Your task to perform on an android device: turn on wifi Image 0: 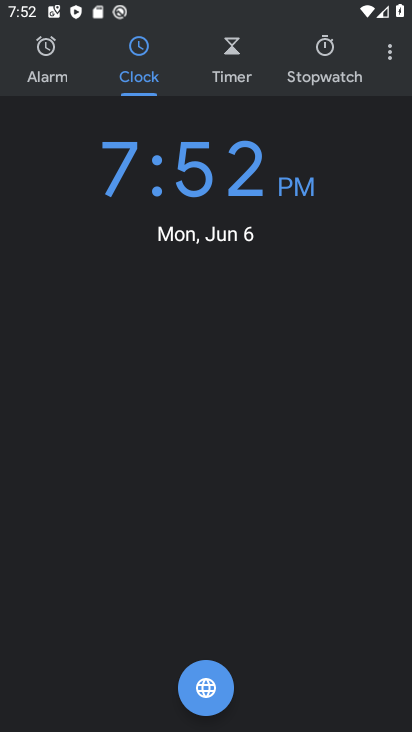
Step 0: press home button
Your task to perform on an android device: turn on wifi Image 1: 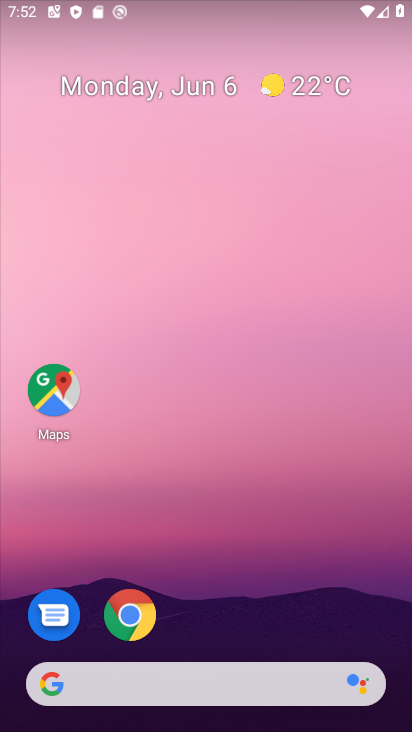
Step 1: drag from (392, 699) to (289, 17)
Your task to perform on an android device: turn on wifi Image 2: 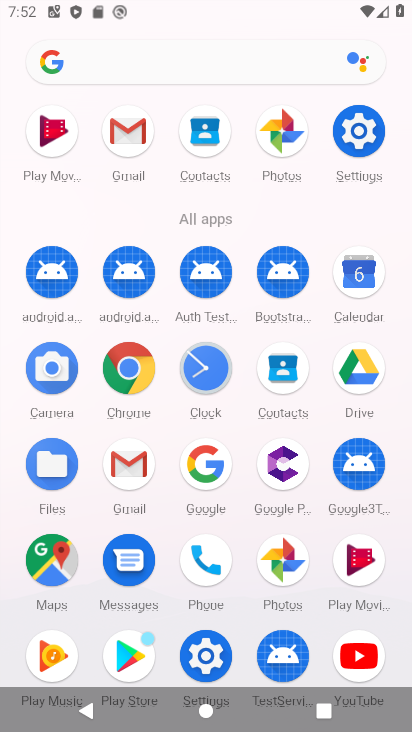
Step 2: click (342, 138)
Your task to perform on an android device: turn on wifi Image 3: 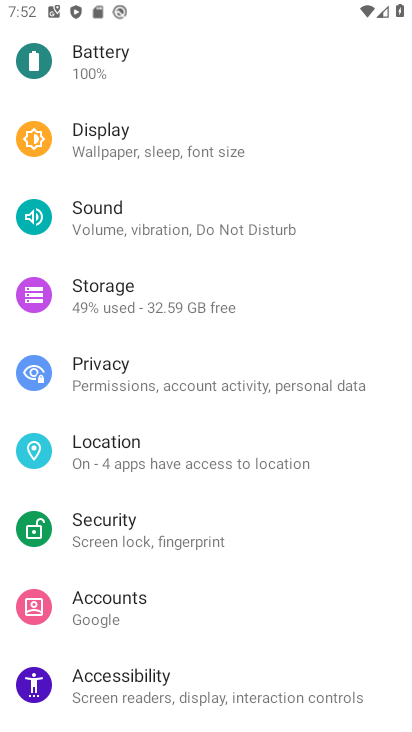
Step 3: drag from (238, 172) to (317, 608)
Your task to perform on an android device: turn on wifi Image 4: 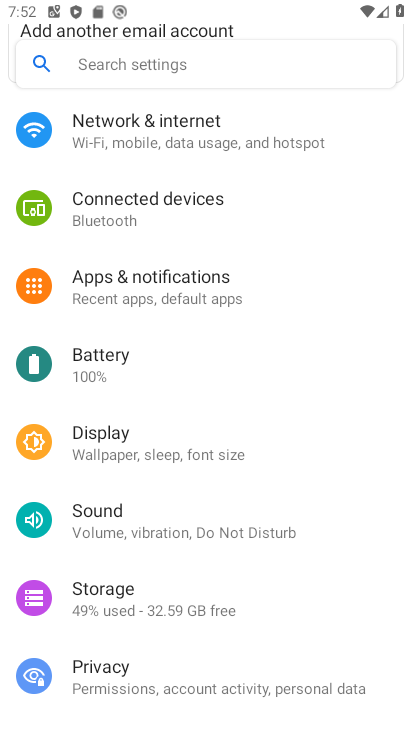
Step 4: click (192, 114)
Your task to perform on an android device: turn on wifi Image 5: 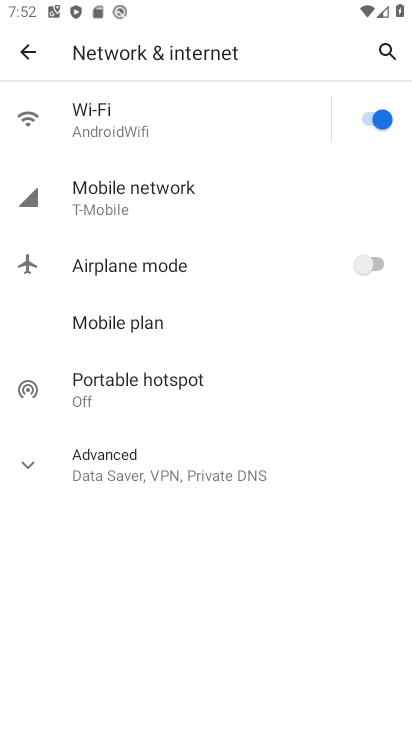
Step 5: task complete